Your task to perform on an android device: Search for flights from Sydney to Zurich Image 0: 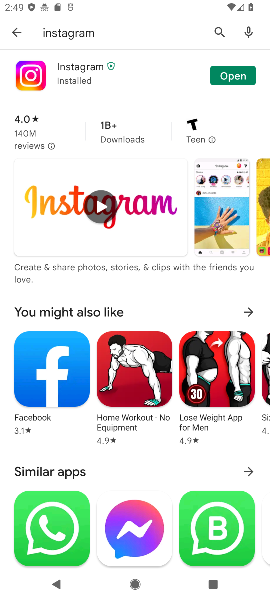
Step 0: press home button
Your task to perform on an android device: Search for flights from Sydney to Zurich Image 1: 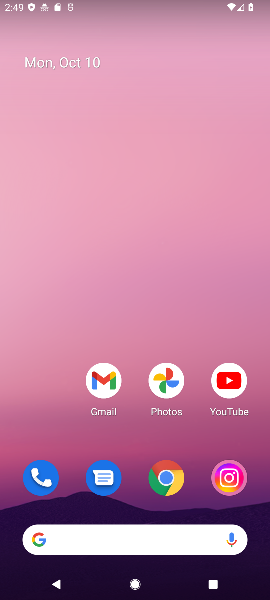
Step 1: click (165, 499)
Your task to perform on an android device: Search for flights from Sydney to Zurich Image 2: 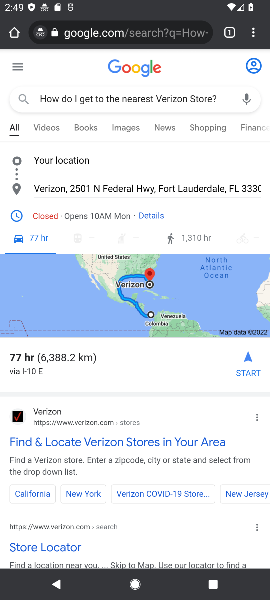
Step 2: click (124, 24)
Your task to perform on an android device: Search for flights from Sydney to Zurich Image 3: 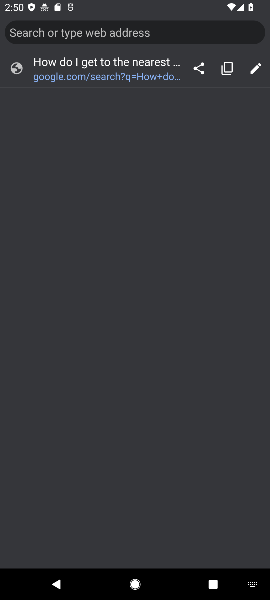
Step 3: type " flights from Sydney to Zurich"
Your task to perform on an android device: Search for flights from Sydney to Zurich Image 4: 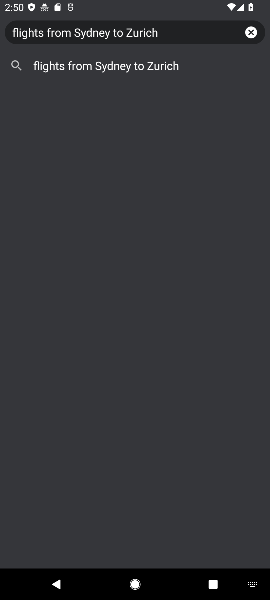
Step 4: click (135, 62)
Your task to perform on an android device: Search for flights from Sydney to Zurich Image 5: 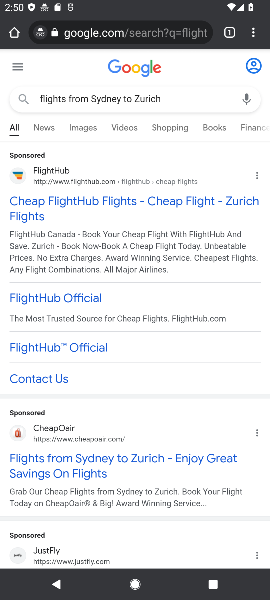
Step 5: click (63, 463)
Your task to perform on an android device: Search for flights from Sydney to Zurich Image 6: 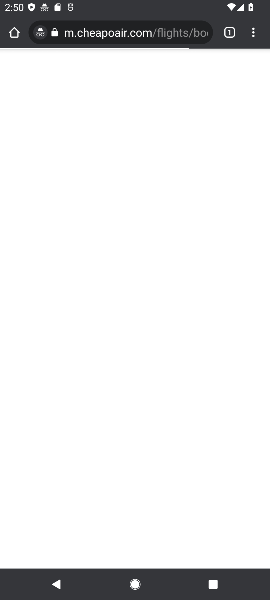
Step 6: click (63, 463)
Your task to perform on an android device: Search for flights from Sydney to Zurich Image 7: 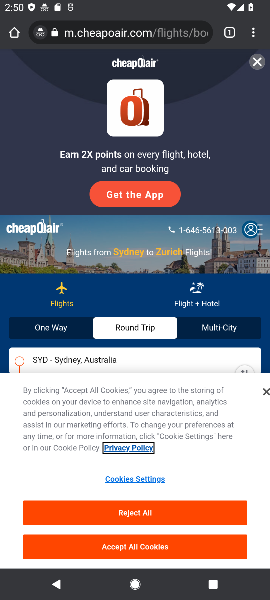
Step 7: click (268, 392)
Your task to perform on an android device: Search for flights from Sydney to Zurich Image 8: 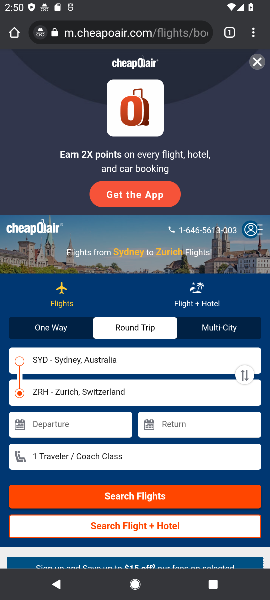
Step 8: click (135, 501)
Your task to perform on an android device: Search for flights from Sydney to Zurich Image 9: 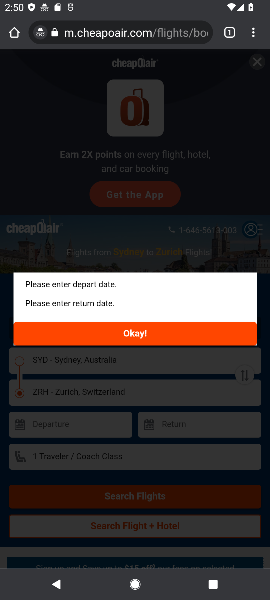
Step 9: click (165, 340)
Your task to perform on an android device: Search for flights from Sydney to Zurich Image 10: 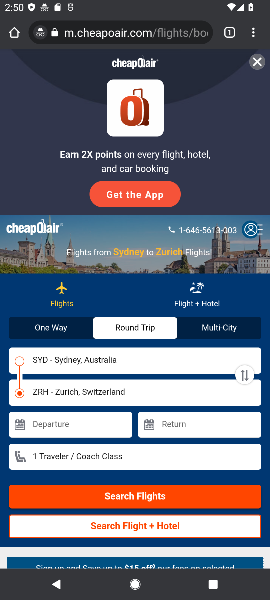
Step 10: click (119, 164)
Your task to perform on an android device: Search for flights from Sydney to Zurich Image 11: 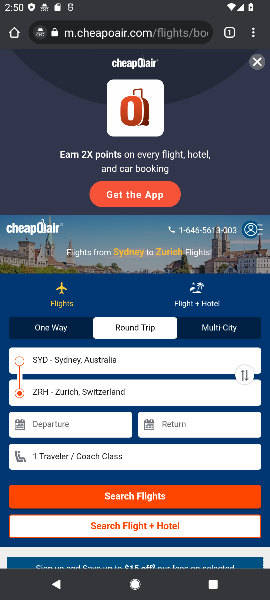
Step 11: task complete